Your task to perform on an android device: uninstall "Skype" Image 0: 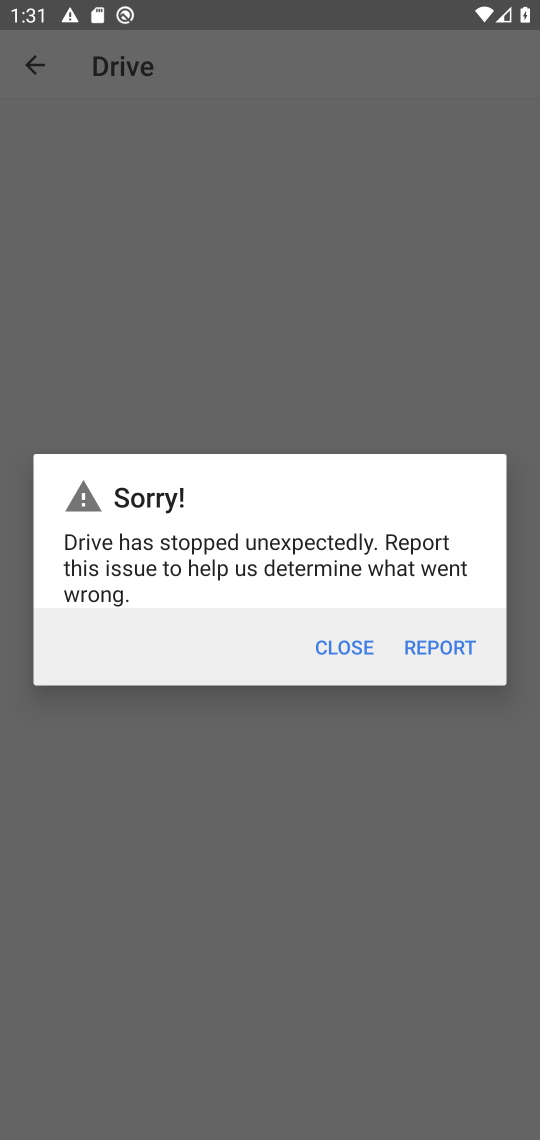
Step 0: press home button
Your task to perform on an android device: uninstall "Skype" Image 1: 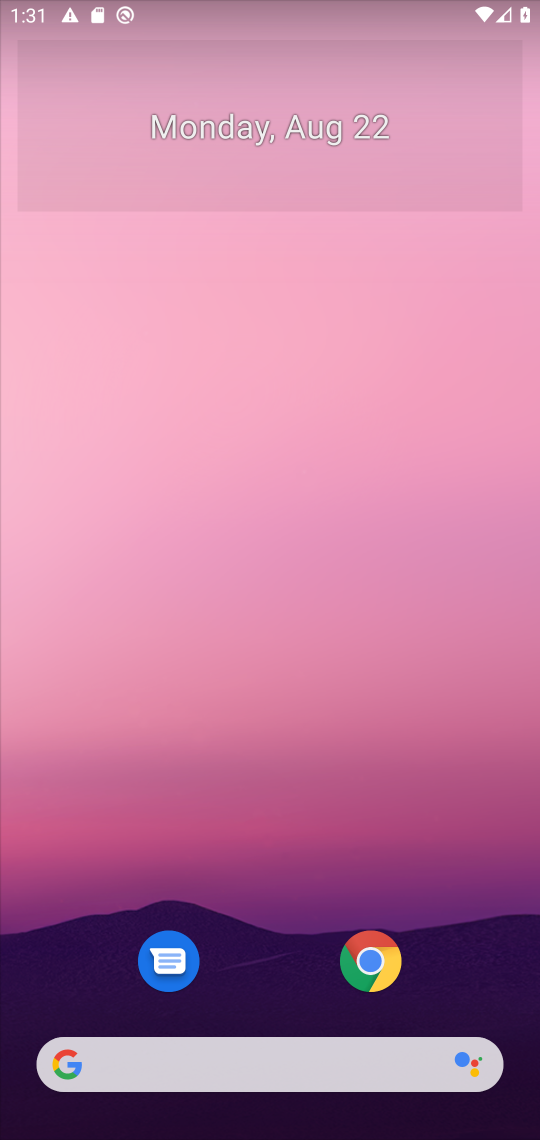
Step 1: drag from (473, 980) to (461, 87)
Your task to perform on an android device: uninstall "Skype" Image 2: 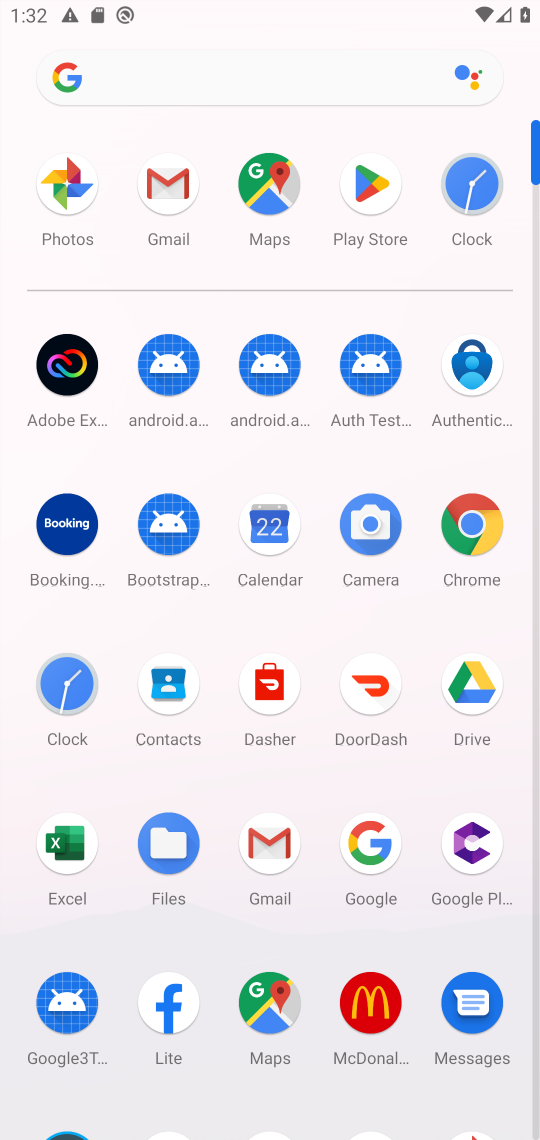
Step 2: click (377, 169)
Your task to perform on an android device: uninstall "Skype" Image 3: 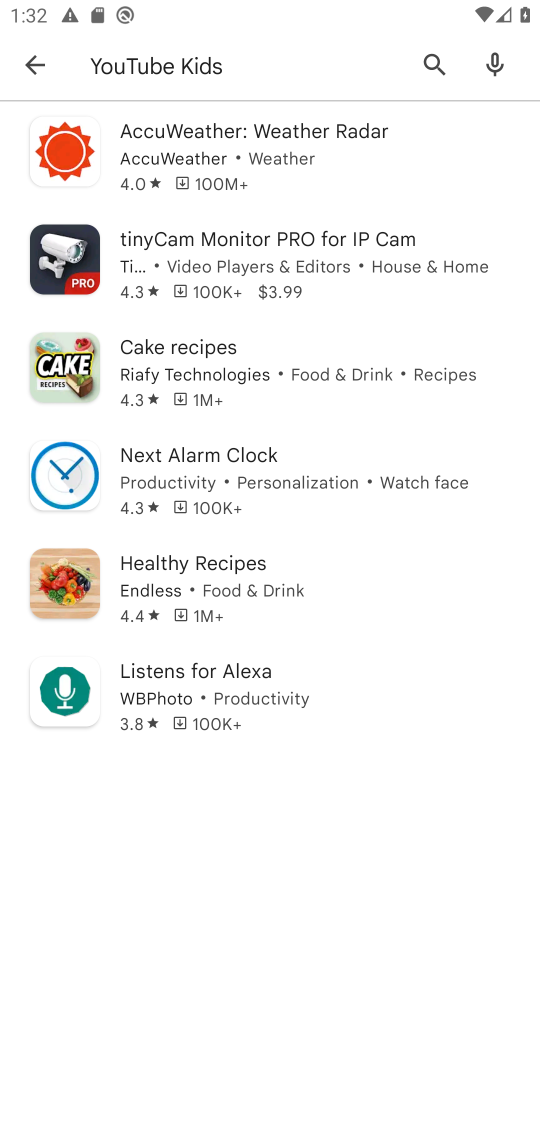
Step 3: press back button
Your task to perform on an android device: uninstall "Skype" Image 4: 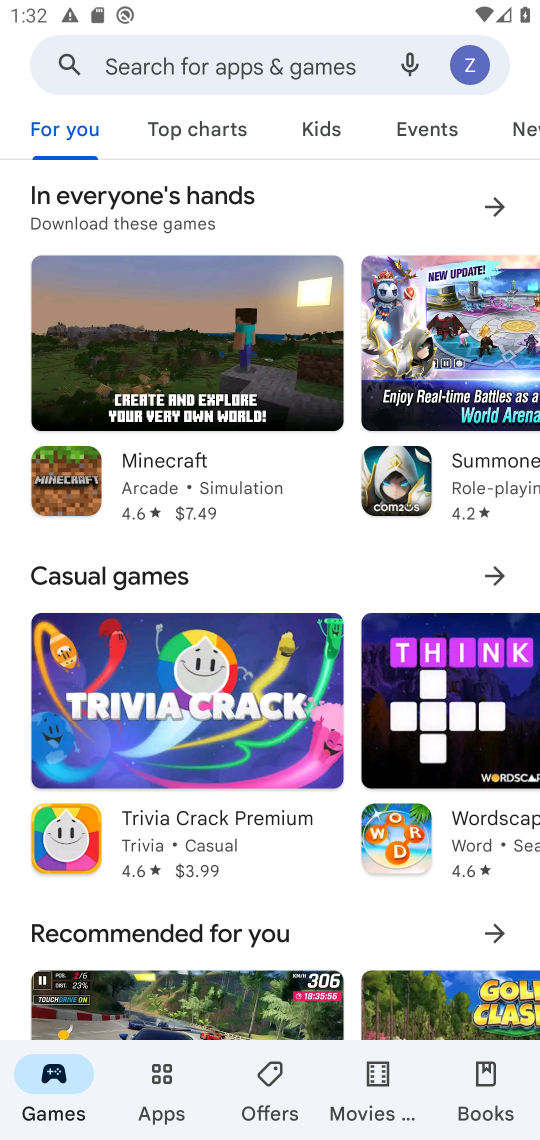
Step 4: click (294, 61)
Your task to perform on an android device: uninstall "Skype" Image 5: 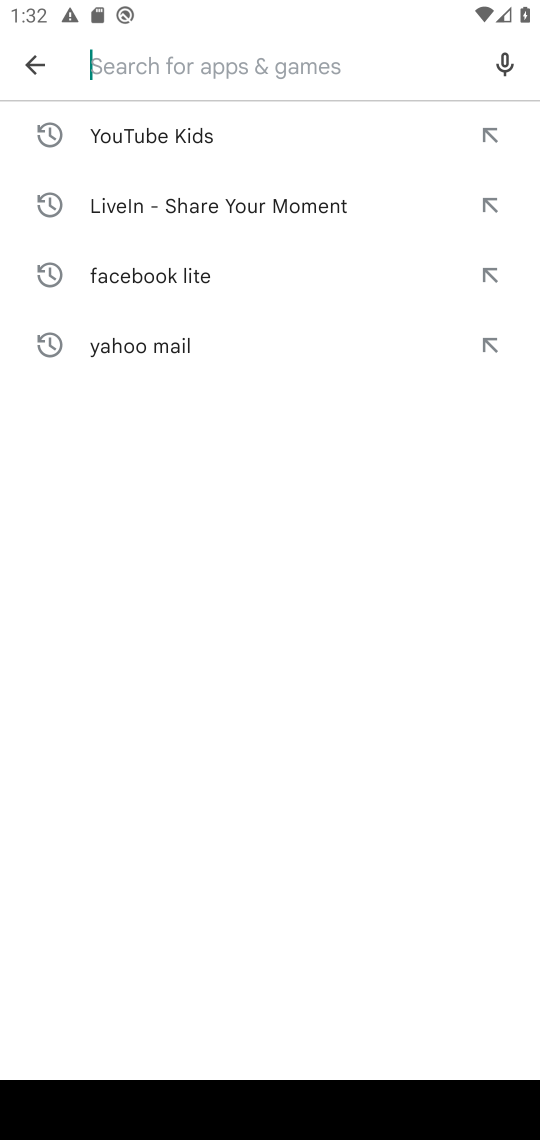
Step 5: type "skype"
Your task to perform on an android device: uninstall "Skype" Image 6: 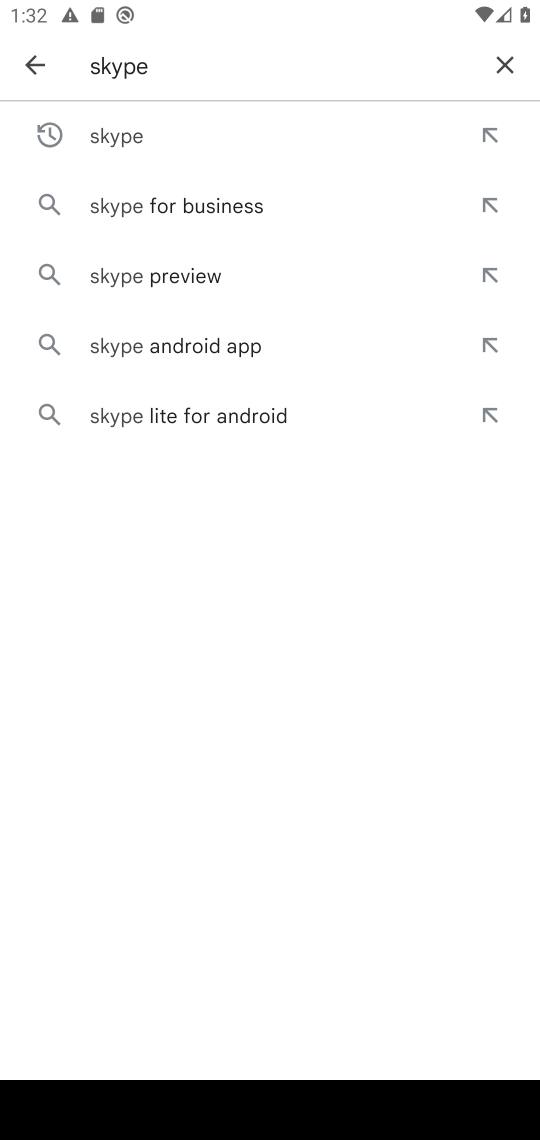
Step 6: click (183, 126)
Your task to perform on an android device: uninstall "Skype" Image 7: 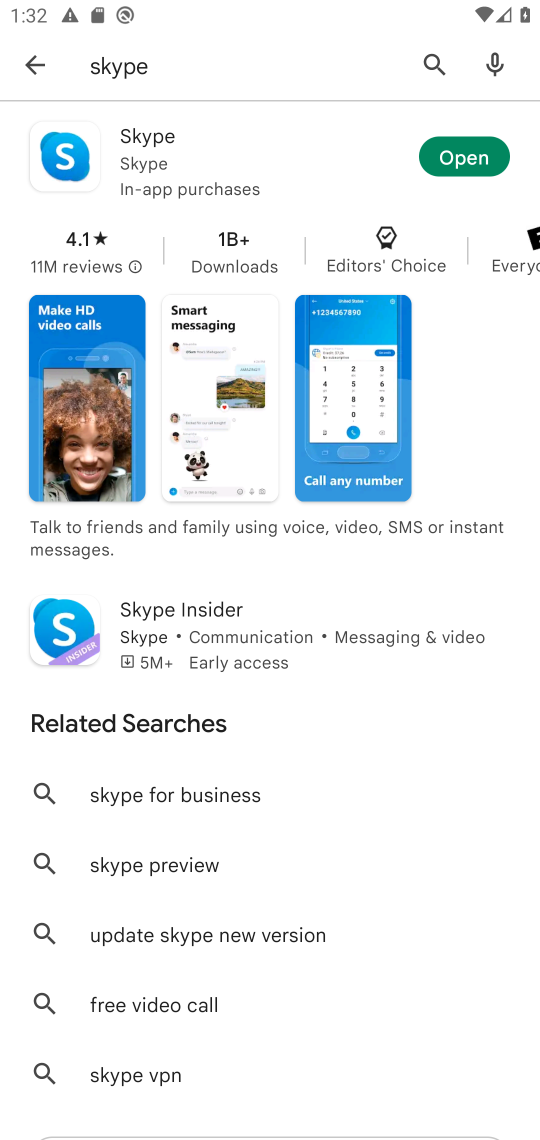
Step 7: task complete